Your task to perform on an android device: Open calendar and show me the third week of next month Image 0: 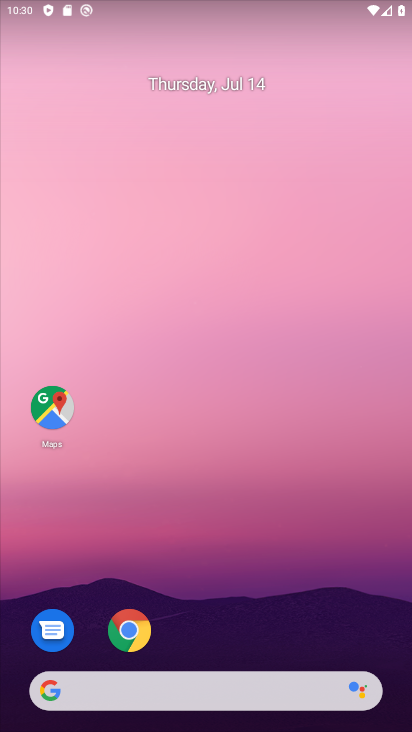
Step 0: drag from (221, 595) to (218, 86)
Your task to perform on an android device: Open calendar and show me the third week of next month Image 1: 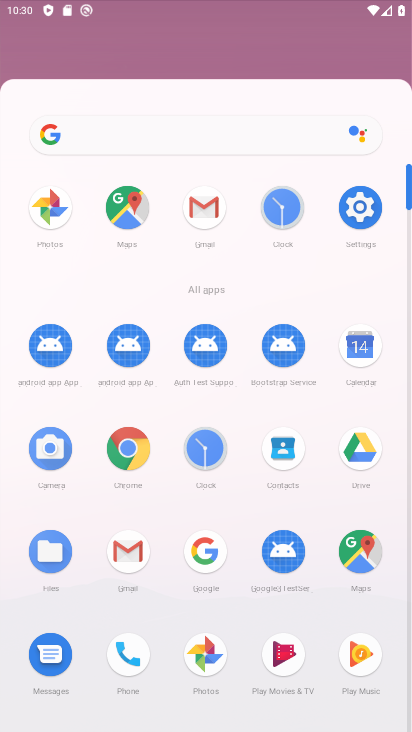
Step 1: drag from (188, 641) to (185, 87)
Your task to perform on an android device: Open calendar and show me the third week of next month Image 2: 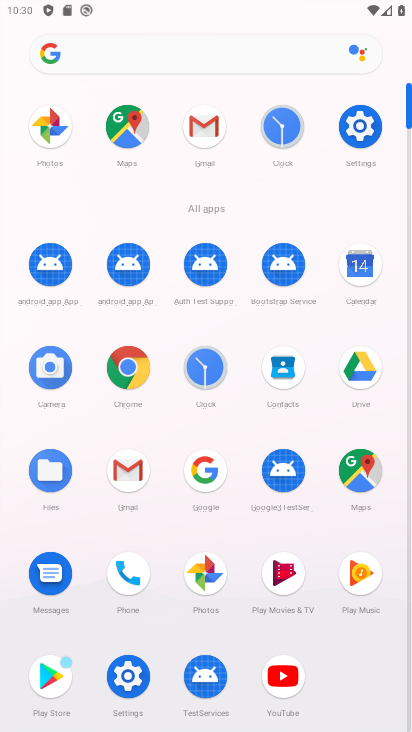
Step 2: click (358, 264)
Your task to perform on an android device: Open calendar and show me the third week of next month Image 3: 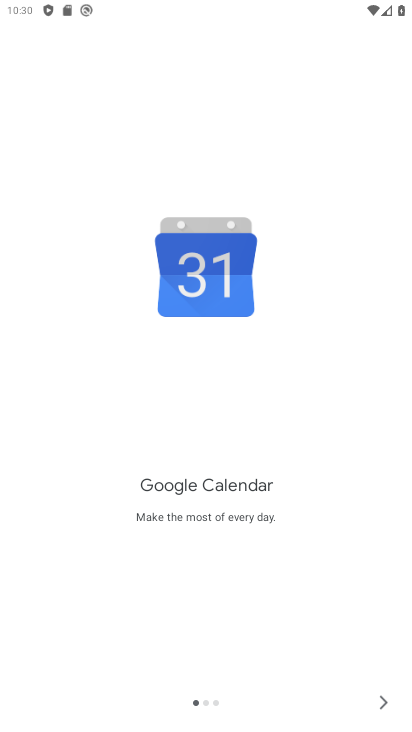
Step 3: click (382, 695)
Your task to perform on an android device: Open calendar and show me the third week of next month Image 4: 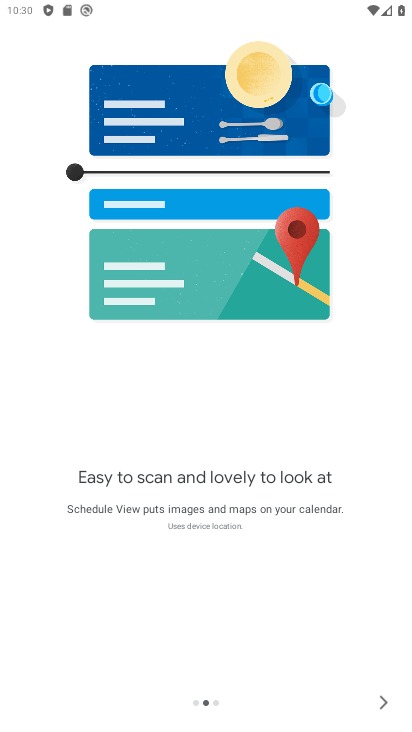
Step 4: click (390, 704)
Your task to perform on an android device: Open calendar and show me the third week of next month Image 5: 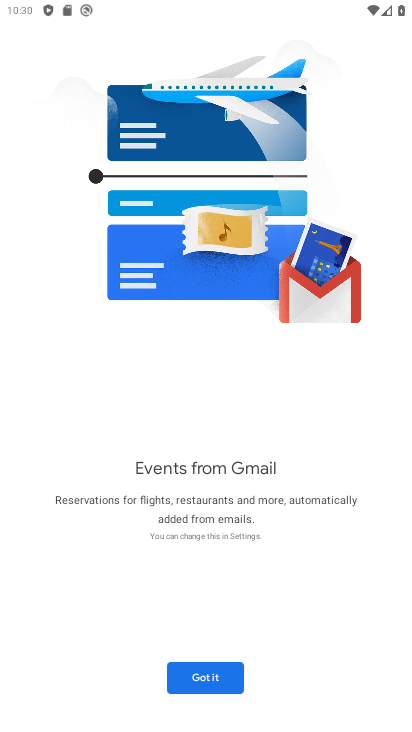
Step 5: click (191, 657)
Your task to perform on an android device: Open calendar and show me the third week of next month Image 6: 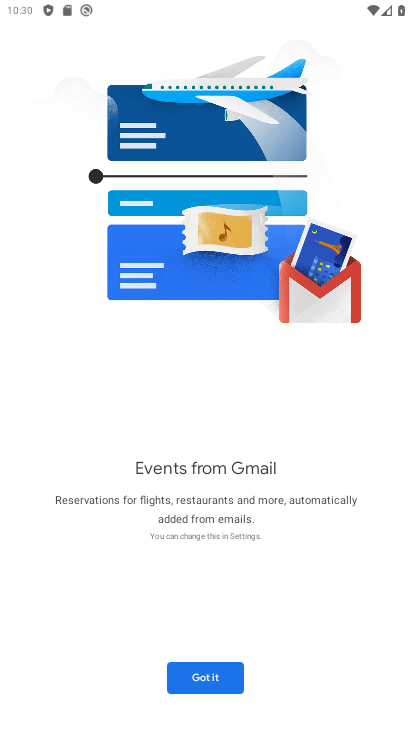
Step 6: click (193, 680)
Your task to perform on an android device: Open calendar and show me the third week of next month Image 7: 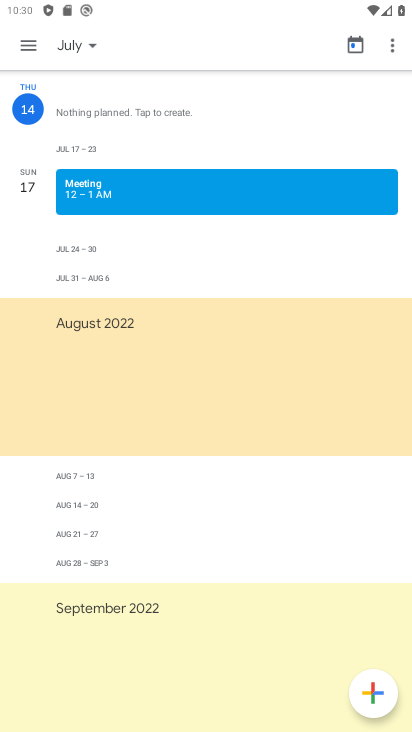
Step 7: click (25, 40)
Your task to perform on an android device: Open calendar and show me the third week of next month Image 8: 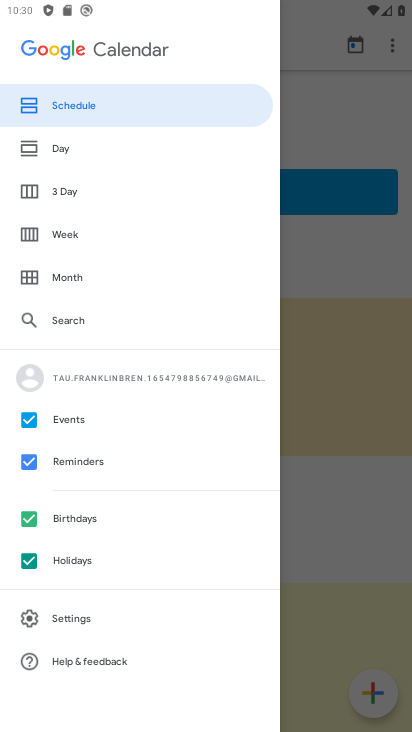
Step 8: click (63, 269)
Your task to perform on an android device: Open calendar and show me the third week of next month Image 9: 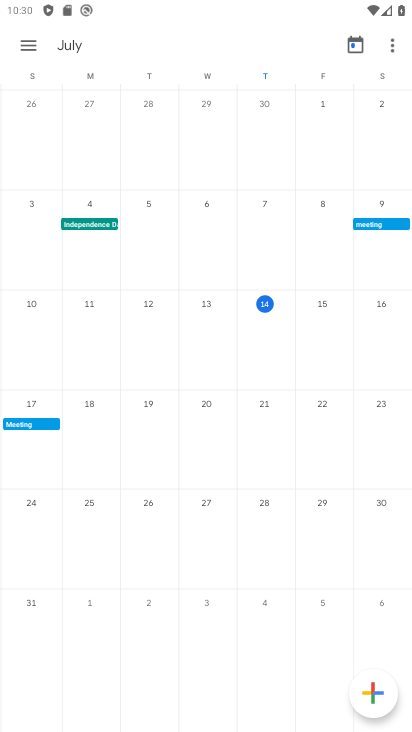
Step 9: click (31, 42)
Your task to perform on an android device: Open calendar and show me the third week of next month Image 10: 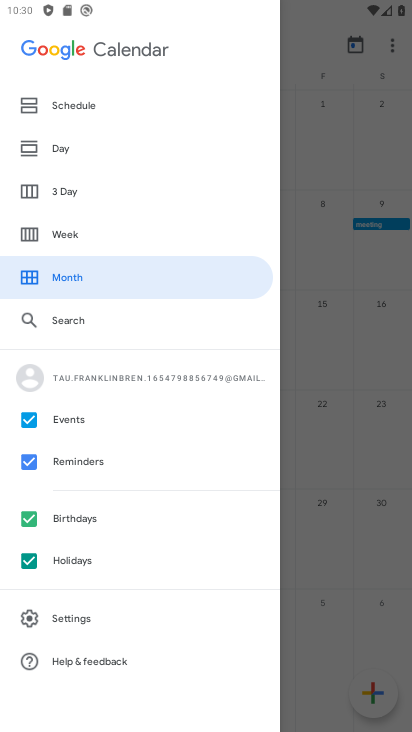
Step 10: click (70, 238)
Your task to perform on an android device: Open calendar and show me the third week of next month Image 11: 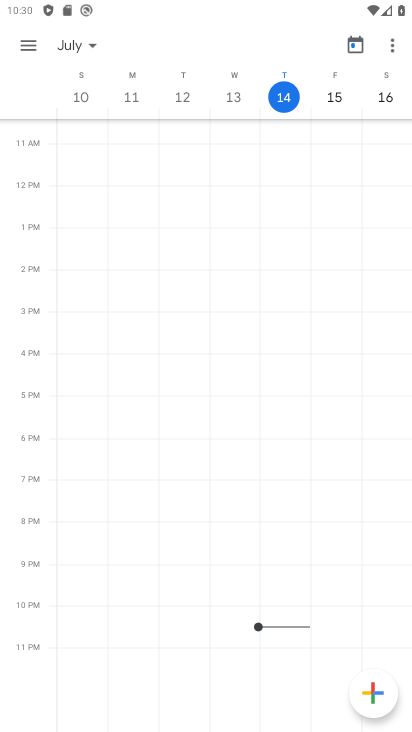
Step 11: task complete